Your task to perform on an android device: toggle javascript in the chrome app Image 0: 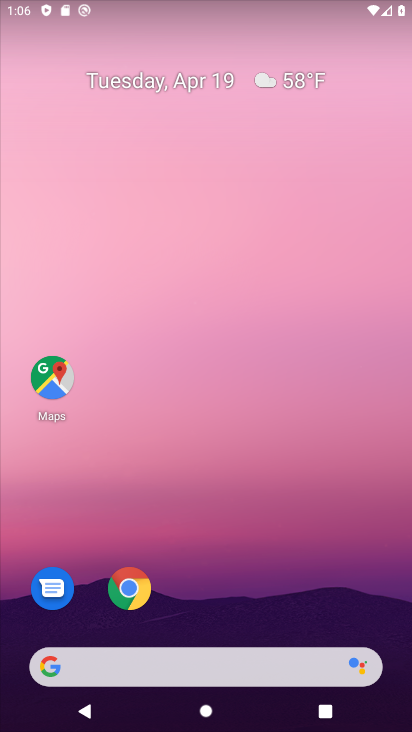
Step 0: drag from (270, 536) to (345, 65)
Your task to perform on an android device: toggle javascript in the chrome app Image 1: 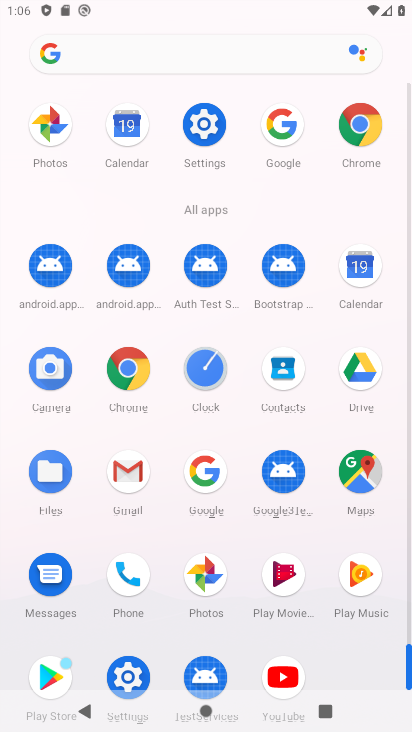
Step 1: click (137, 362)
Your task to perform on an android device: toggle javascript in the chrome app Image 2: 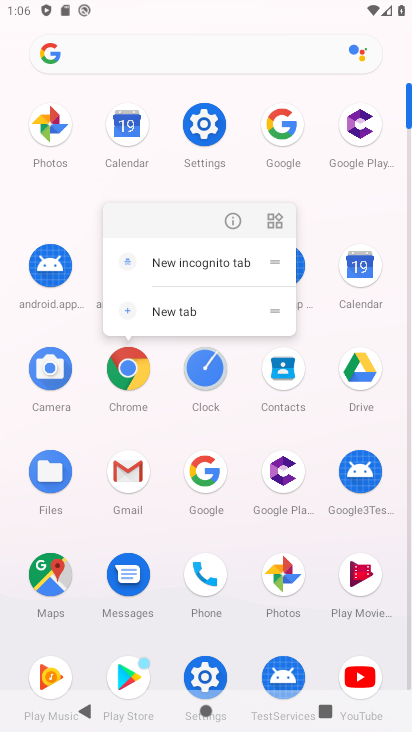
Step 2: click (138, 361)
Your task to perform on an android device: toggle javascript in the chrome app Image 3: 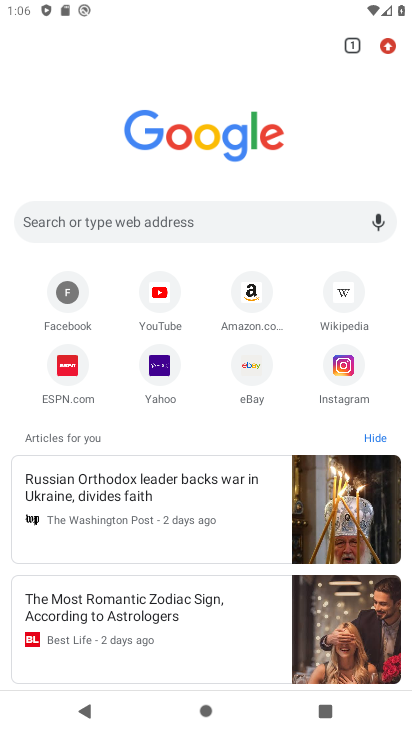
Step 3: click (393, 46)
Your task to perform on an android device: toggle javascript in the chrome app Image 4: 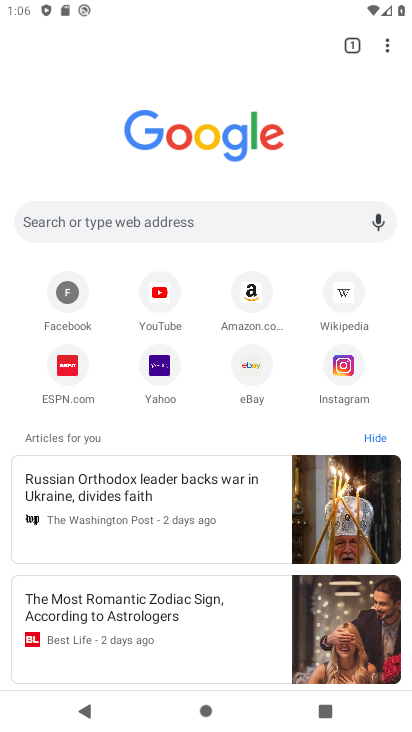
Step 4: click (385, 51)
Your task to perform on an android device: toggle javascript in the chrome app Image 5: 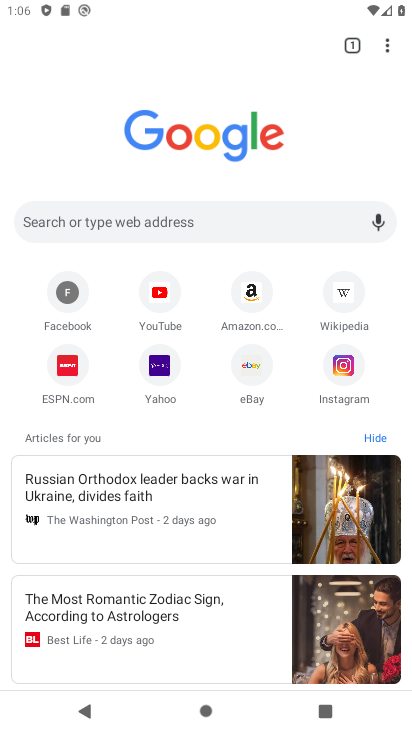
Step 5: click (386, 40)
Your task to perform on an android device: toggle javascript in the chrome app Image 6: 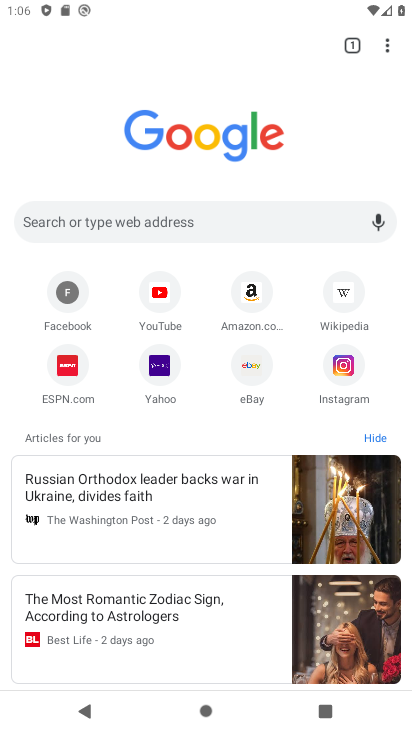
Step 6: click (386, 40)
Your task to perform on an android device: toggle javascript in the chrome app Image 7: 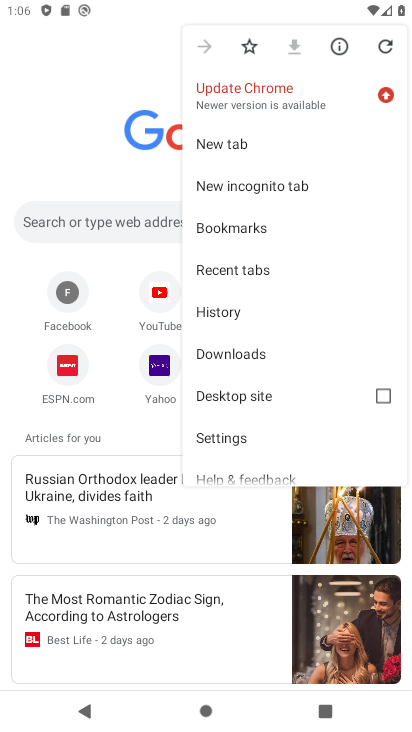
Step 7: click (245, 438)
Your task to perform on an android device: toggle javascript in the chrome app Image 8: 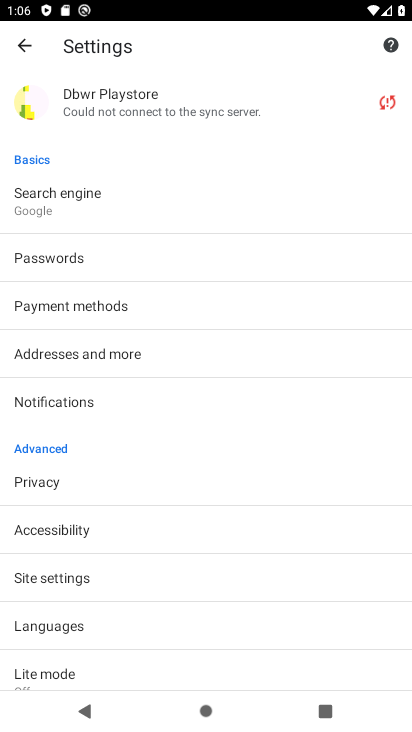
Step 8: click (167, 571)
Your task to perform on an android device: toggle javascript in the chrome app Image 9: 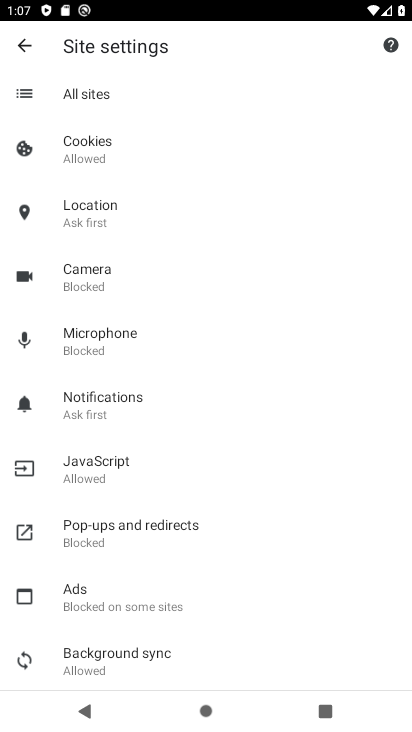
Step 9: click (193, 468)
Your task to perform on an android device: toggle javascript in the chrome app Image 10: 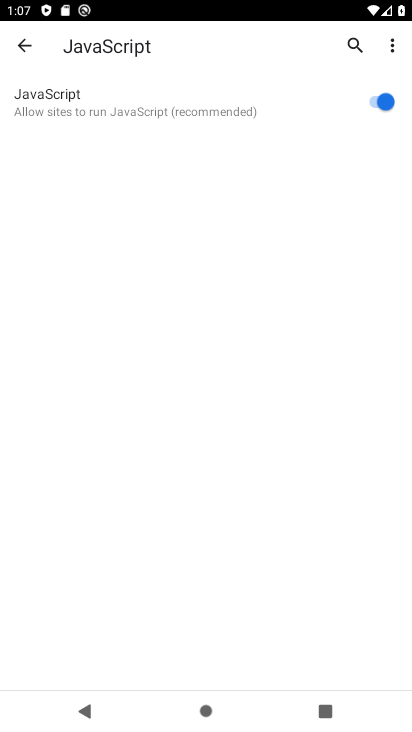
Step 10: click (380, 102)
Your task to perform on an android device: toggle javascript in the chrome app Image 11: 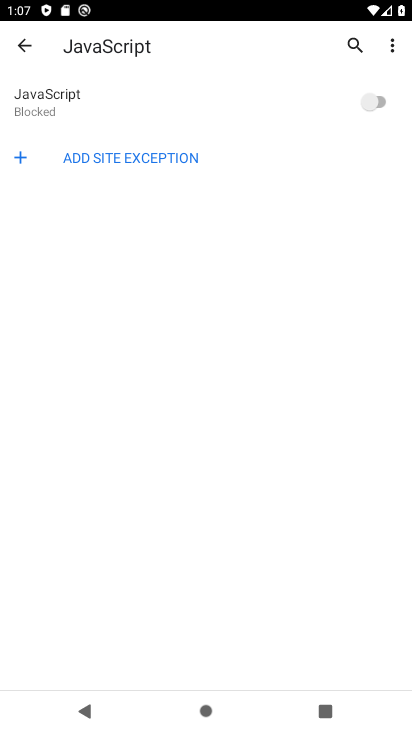
Step 11: task complete